Your task to perform on an android device: turn off javascript in the chrome app Image 0: 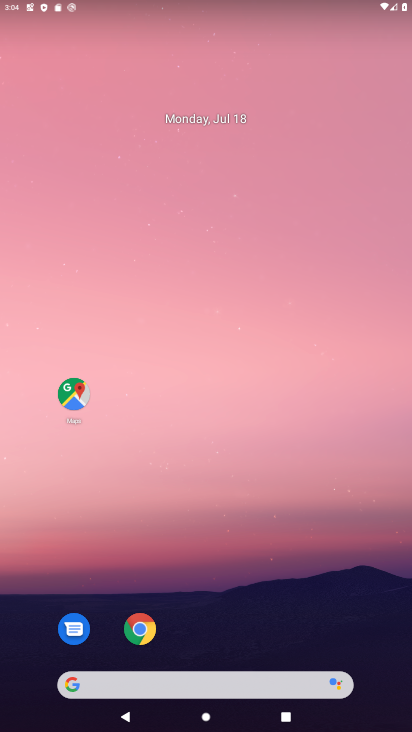
Step 0: click (147, 634)
Your task to perform on an android device: turn off javascript in the chrome app Image 1: 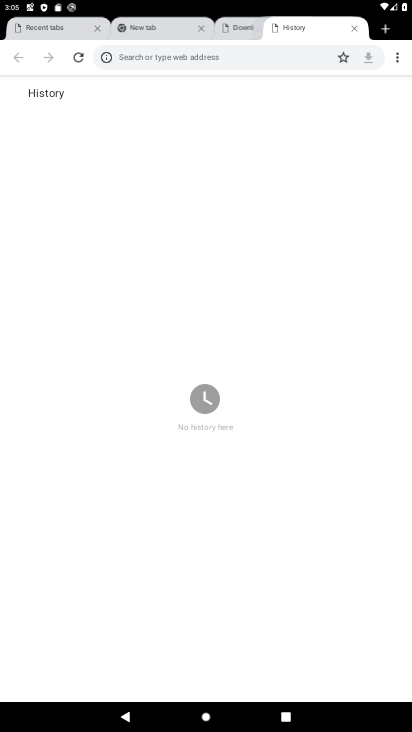
Step 1: click (399, 58)
Your task to perform on an android device: turn off javascript in the chrome app Image 2: 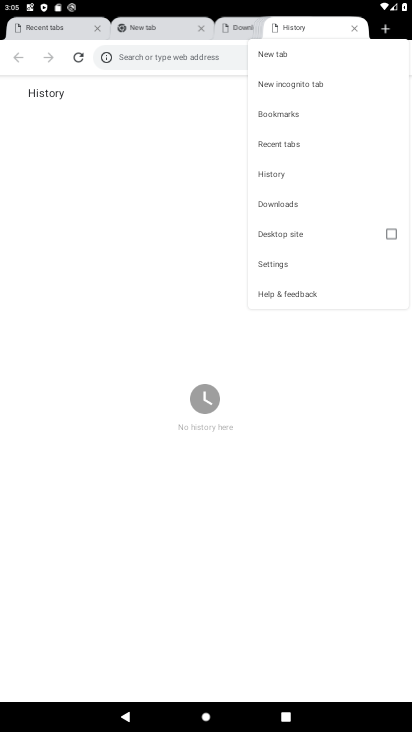
Step 2: click (285, 259)
Your task to perform on an android device: turn off javascript in the chrome app Image 3: 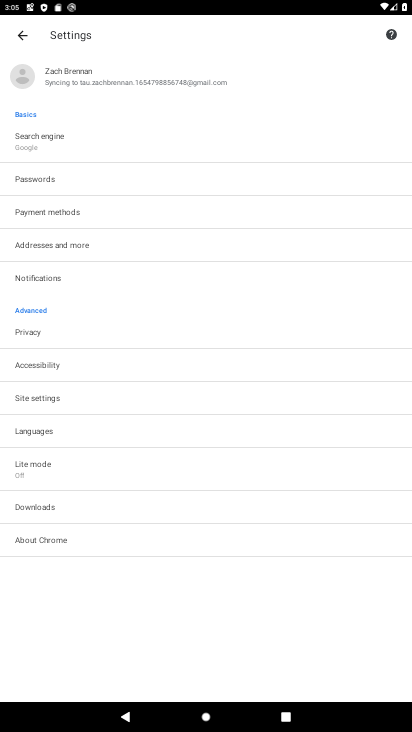
Step 3: click (96, 397)
Your task to perform on an android device: turn off javascript in the chrome app Image 4: 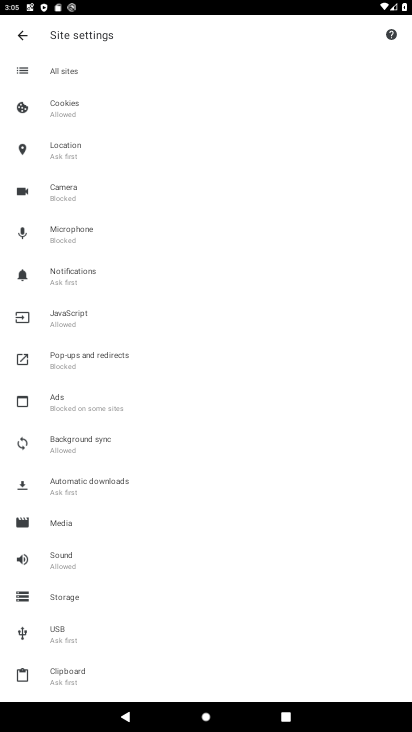
Step 4: click (102, 321)
Your task to perform on an android device: turn off javascript in the chrome app Image 5: 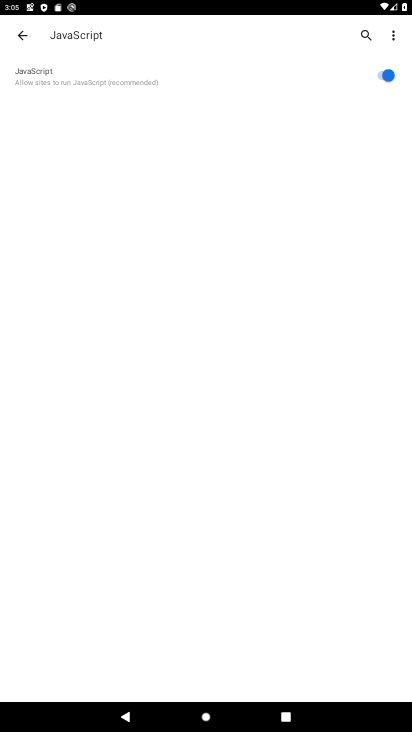
Step 5: click (381, 77)
Your task to perform on an android device: turn off javascript in the chrome app Image 6: 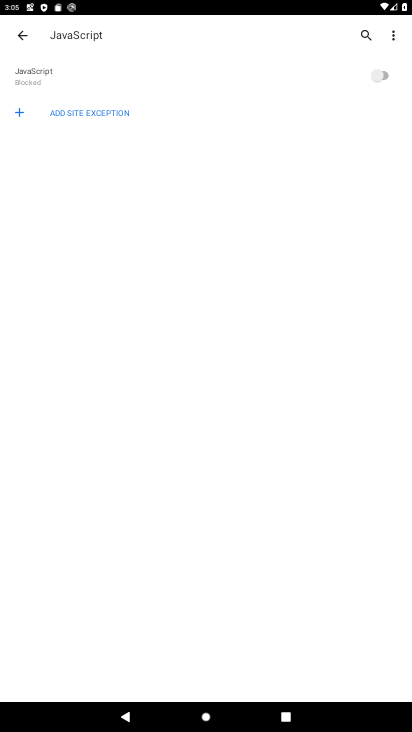
Step 6: task complete